Your task to perform on an android device: install app "PlayWell" Image 0: 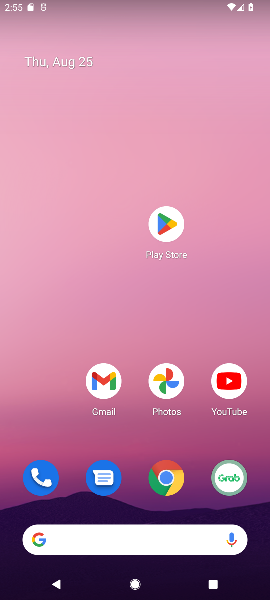
Step 0: click (170, 219)
Your task to perform on an android device: install app "PlayWell" Image 1: 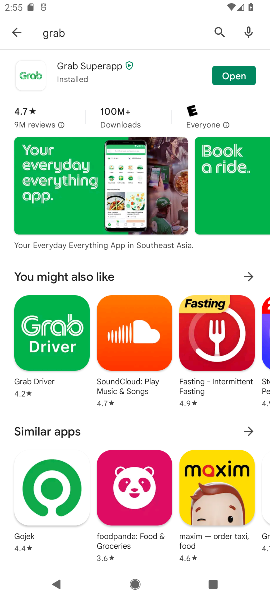
Step 1: click (218, 29)
Your task to perform on an android device: install app "PlayWell" Image 2: 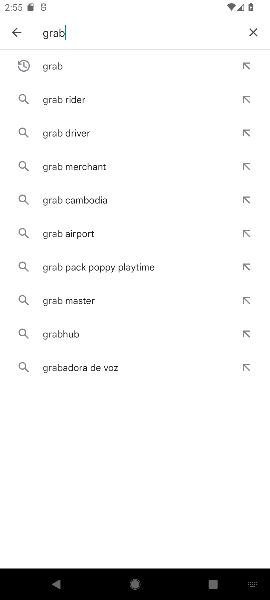
Step 2: click (250, 26)
Your task to perform on an android device: install app "PlayWell" Image 3: 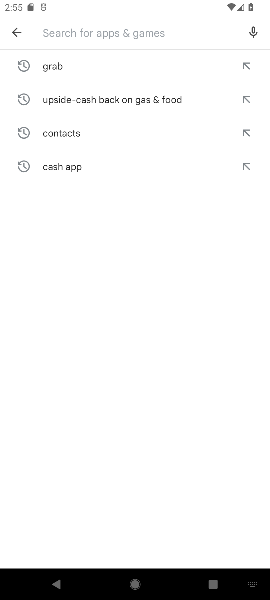
Step 3: type "PlayWell"
Your task to perform on an android device: install app "PlayWell" Image 4: 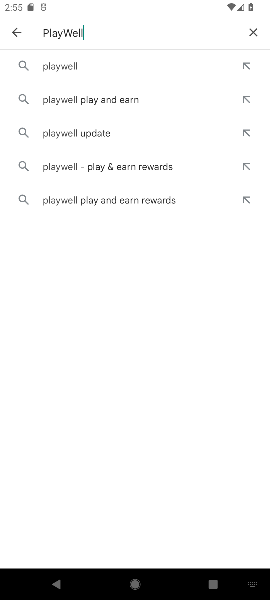
Step 4: click (64, 67)
Your task to perform on an android device: install app "PlayWell" Image 5: 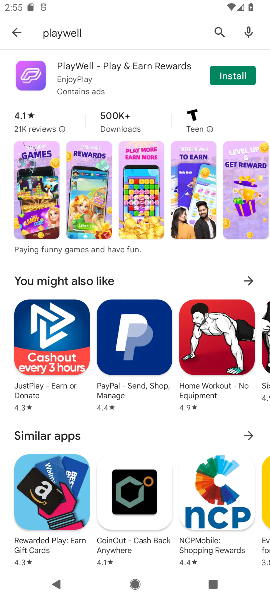
Step 5: click (242, 75)
Your task to perform on an android device: install app "PlayWell" Image 6: 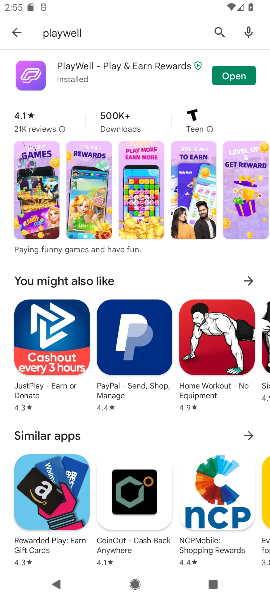
Step 6: task complete